Your task to perform on an android device: toggle location history Image 0: 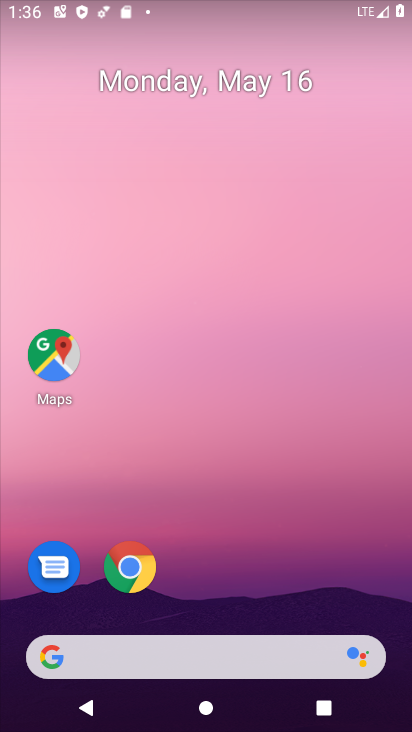
Step 0: drag from (264, 589) to (203, 241)
Your task to perform on an android device: toggle location history Image 1: 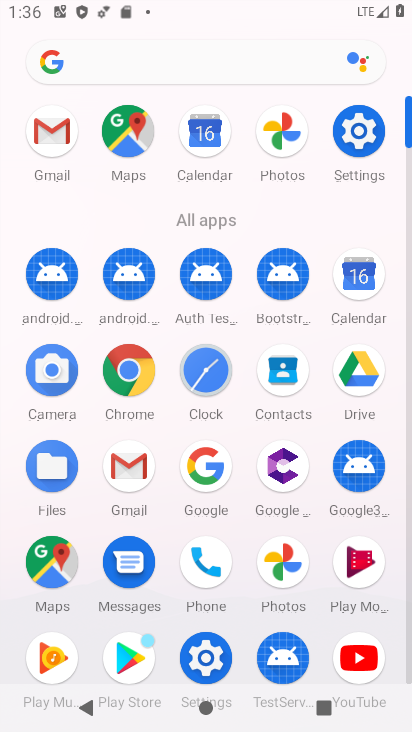
Step 1: click (355, 139)
Your task to perform on an android device: toggle location history Image 2: 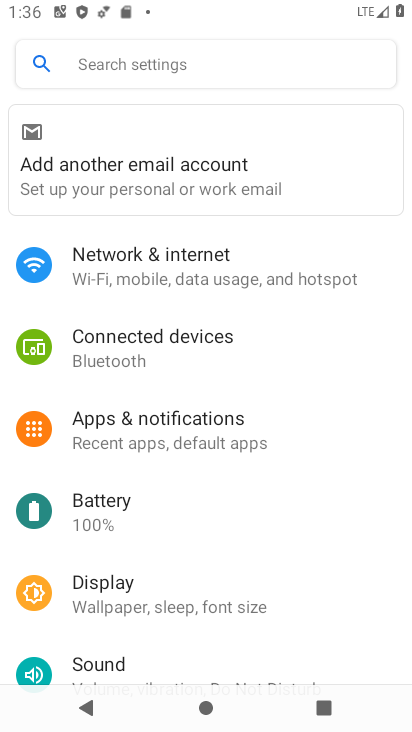
Step 2: press home button
Your task to perform on an android device: toggle location history Image 3: 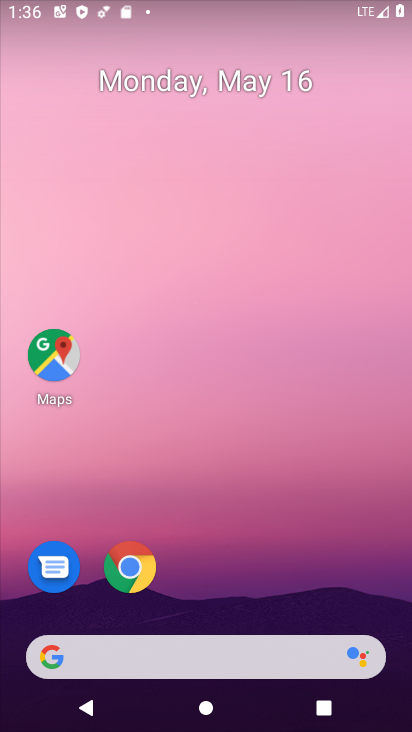
Step 3: click (48, 333)
Your task to perform on an android device: toggle location history Image 4: 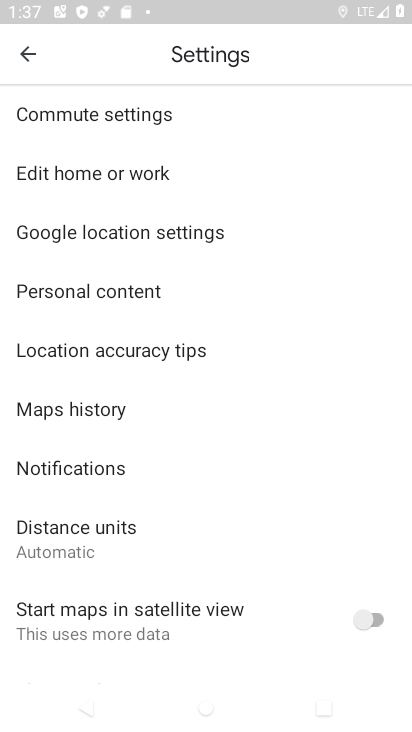
Step 4: click (35, 75)
Your task to perform on an android device: toggle location history Image 5: 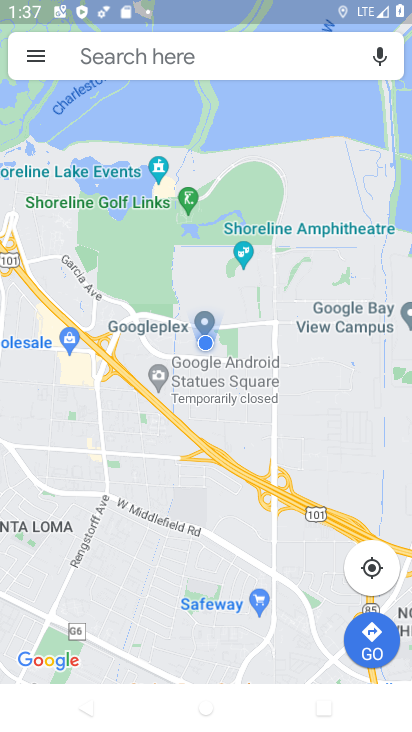
Step 5: click (36, 62)
Your task to perform on an android device: toggle location history Image 6: 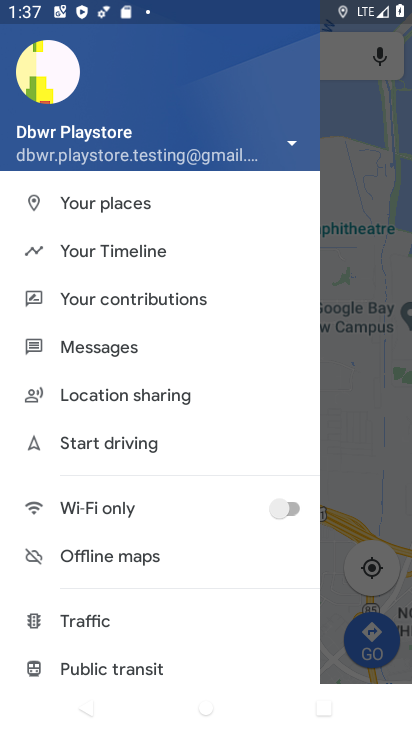
Step 6: click (160, 256)
Your task to perform on an android device: toggle location history Image 7: 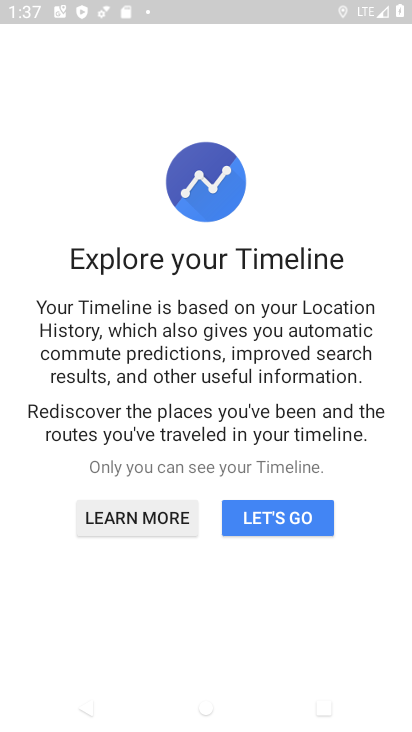
Step 7: click (293, 516)
Your task to perform on an android device: toggle location history Image 8: 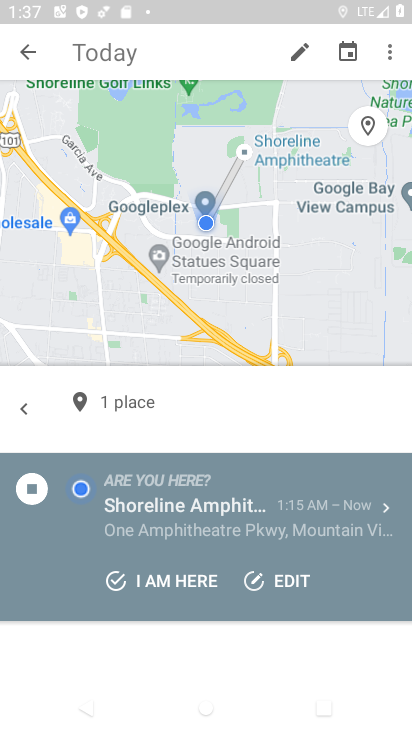
Step 8: click (392, 65)
Your task to perform on an android device: toggle location history Image 9: 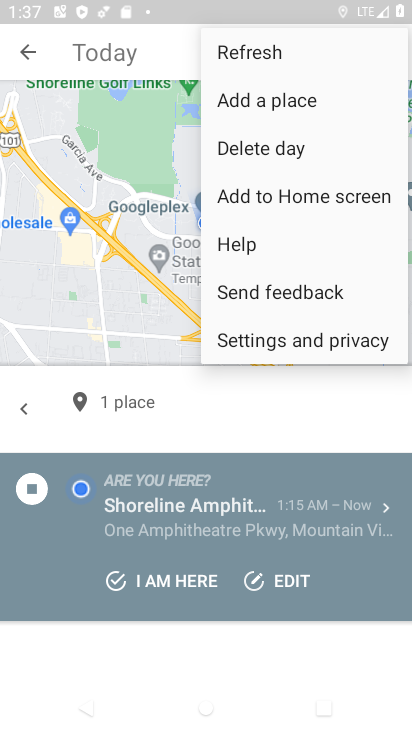
Step 9: click (368, 333)
Your task to perform on an android device: toggle location history Image 10: 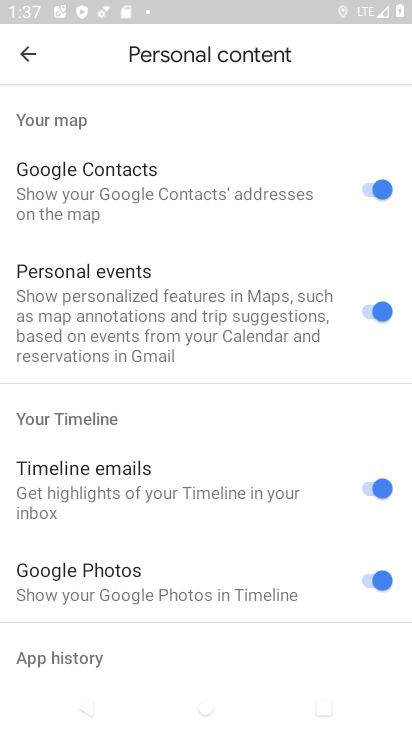
Step 10: drag from (298, 611) to (224, 271)
Your task to perform on an android device: toggle location history Image 11: 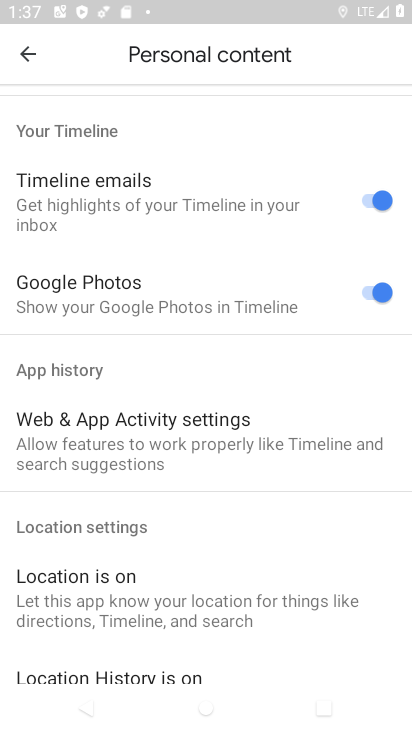
Step 11: drag from (269, 635) to (231, 466)
Your task to perform on an android device: toggle location history Image 12: 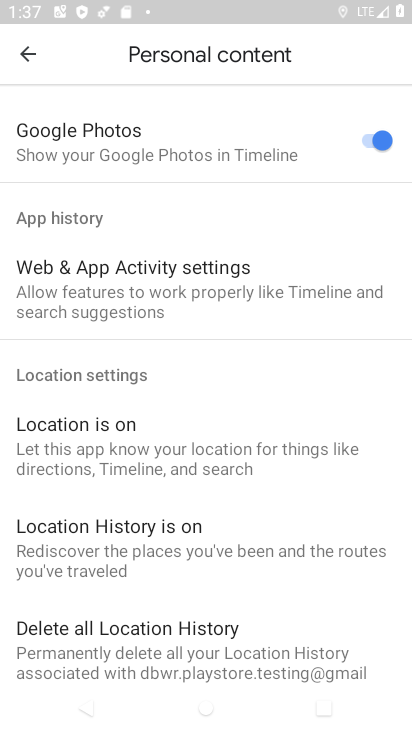
Step 12: click (247, 545)
Your task to perform on an android device: toggle location history Image 13: 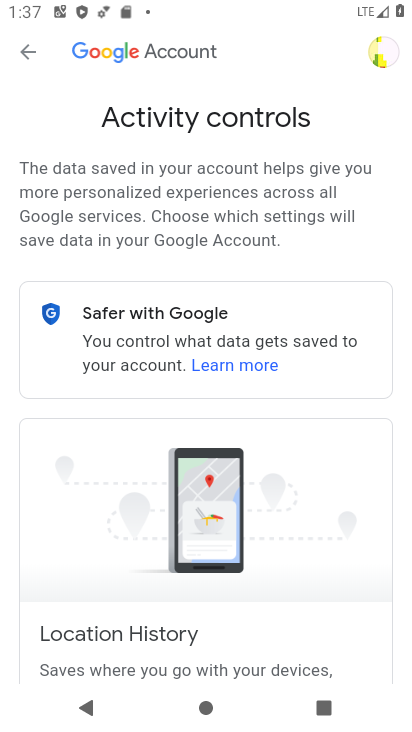
Step 13: drag from (270, 622) to (256, 187)
Your task to perform on an android device: toggle location history Image 14: 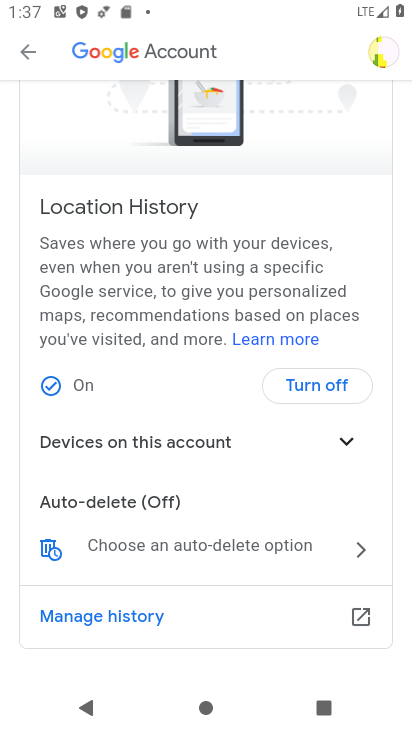
Step 14: click (322, 383)
Your task to perform on an android device: toggle location history Image 15: 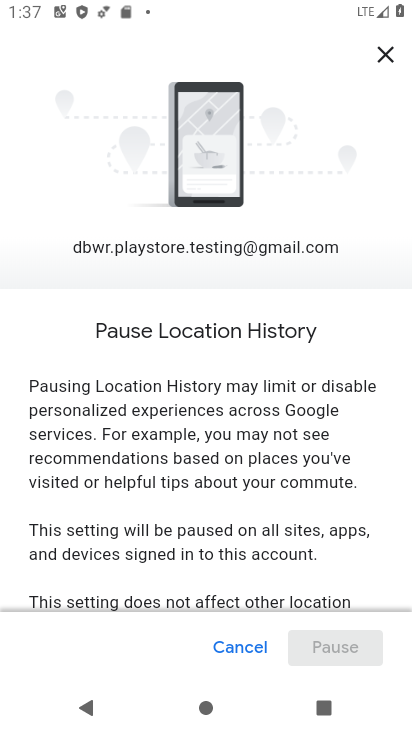
Step 15: drag from (361, 559) to (338, 229)
Your task to perform on an android device: toggle location history Image 16: 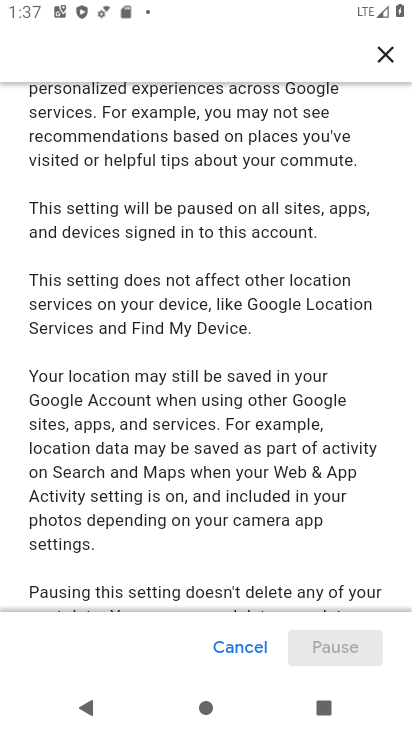
Step 16: drag from (389, 562) to (327, 128)
Your task to perform on an android device: toggle location history Image 17: 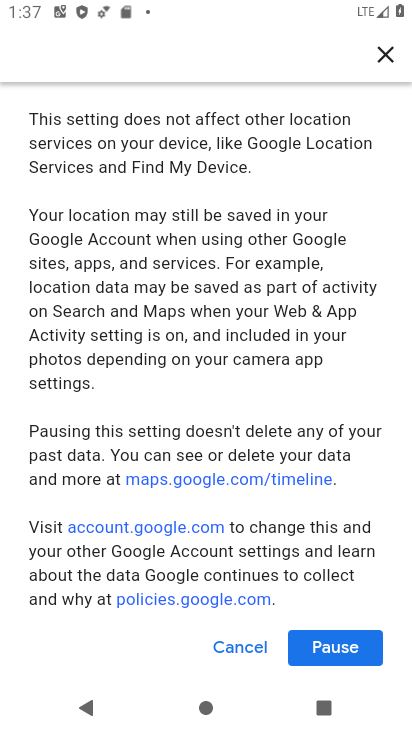
Step 17: click (353, 654)
Your task to perform on an android device: toggle location history Image 18: 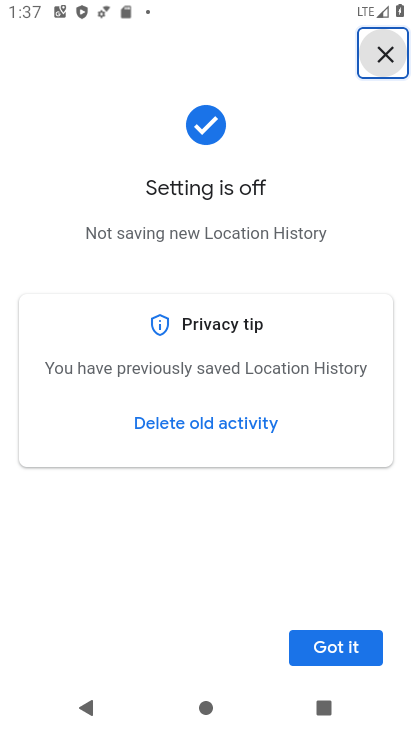
Step 18: click (359, 630)
Your task to perform on an android device: toggle location history Image 19: 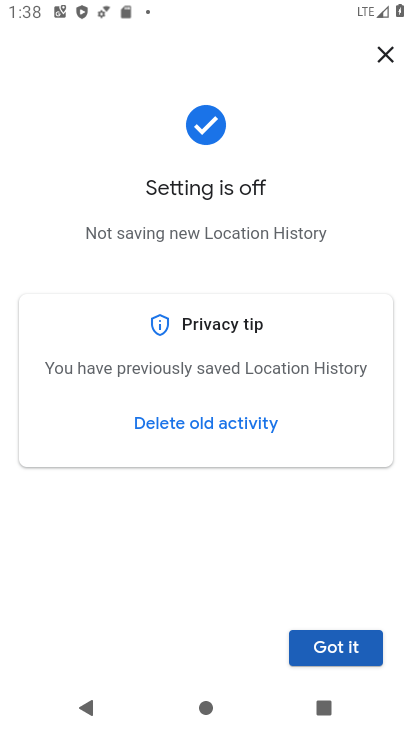
Step 19: click (330, 650)
Your task to perform on an android device: toggle location history Image 20: 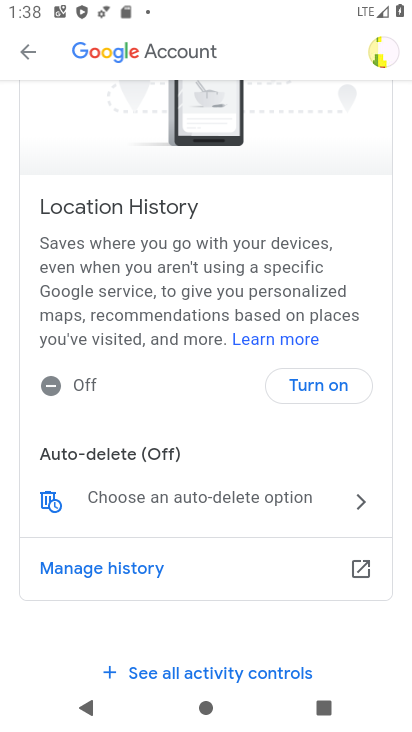
Step 20: task complete